Your task to perform on an android device: open app "Move to iOS" (install if not already installed) Image 0: 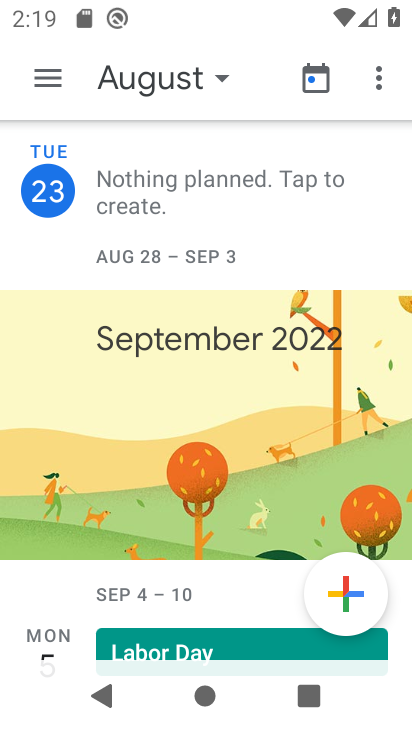
Step 0: press home button
Your task to perform on an android device: open app "Move to iOS" (install if not already installed) Image 1: 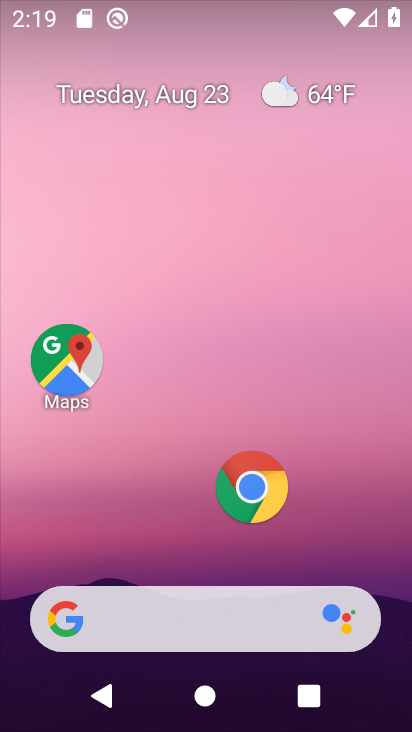
Step 1: drag from (109, 500) to (142, 154)
Your task to perform on an android device: open app "Move to iOS" (install if not already installed) Image 2: 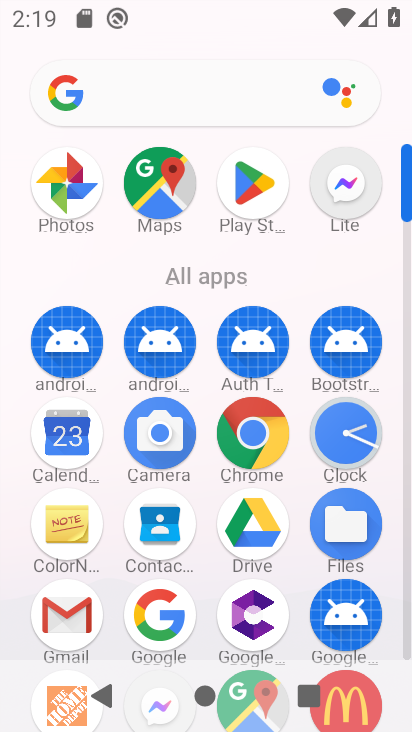
Step 2: click (227, 174)
Your task to perform on an android device: open app "Move to iOS" (install if not already installed) Image 3: 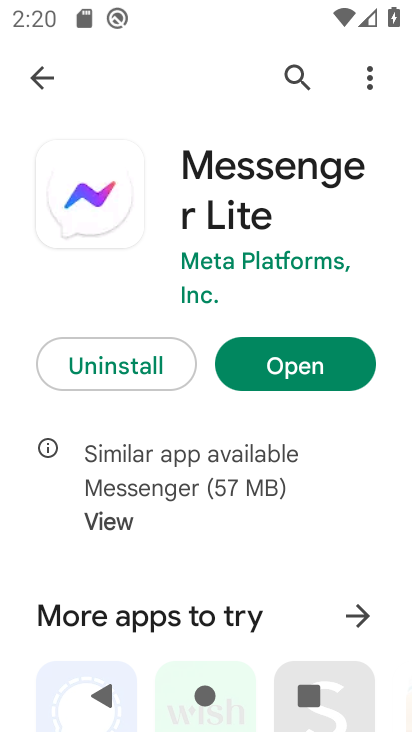
Step 3: click (329, 357)
Your task to perform on an android device: open app "Move to iOS" (install if not already installed) Image 4: 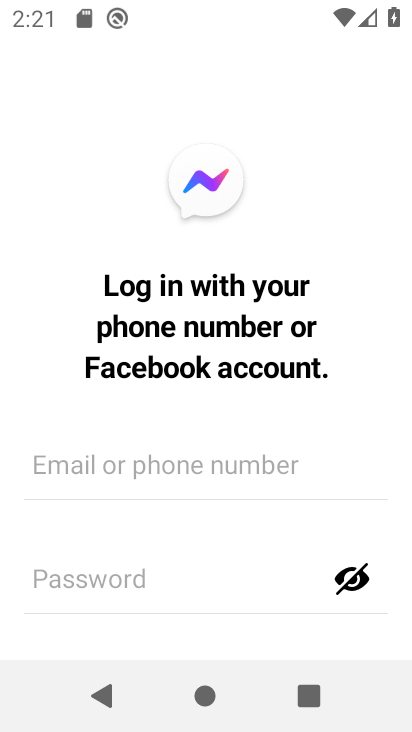
Step 4: press home button
Your task to perform on an android device: open app "Move to iOS" (install if not already installed) Image 5: 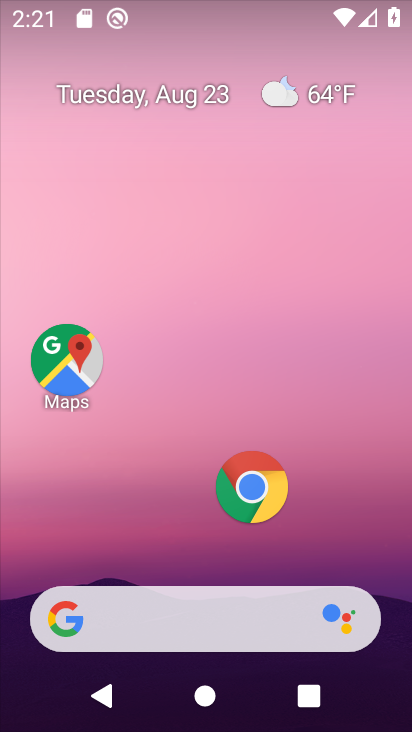
Step 5: drag from (147, 546) to (165, 214)
Your task to perform on an android device: open app "Move to iOS" (install if not already installed) Image 6: 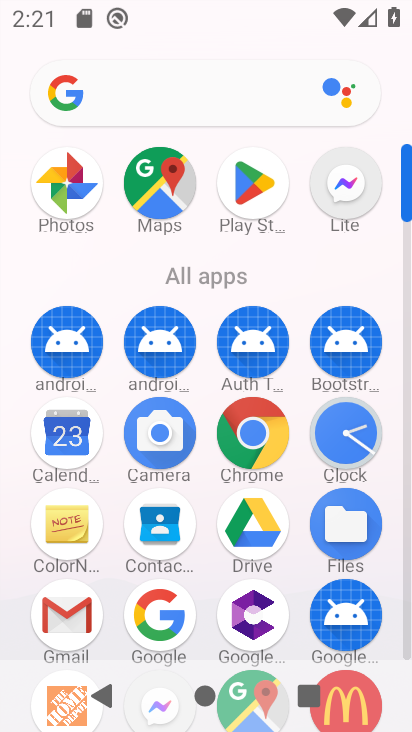
Step 6: click (250, 188)
Your task to perform on an android device: open app "Move to iOS" (install if not already installed) Image 7: 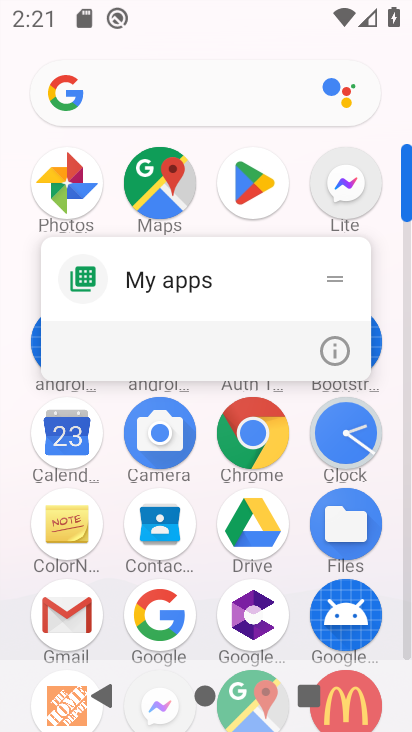
Step 7: click (250, 188)
Your task to perform on an android device: open app "Move to iOS" (install if not already installed) Image 8: 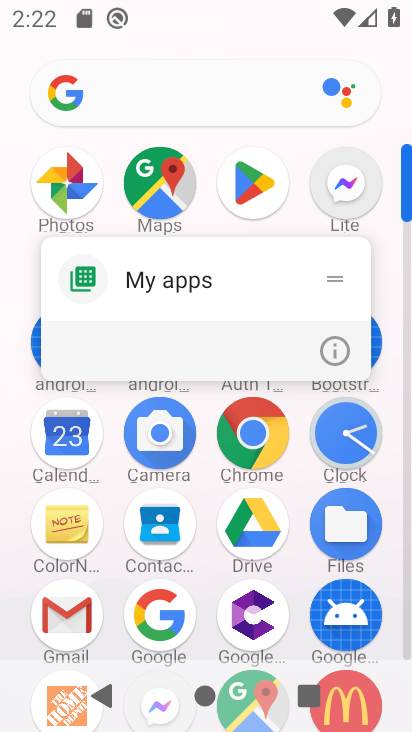
Step 8: click (251, 189)
Your task to perform on an android device: open app "Move to iOS" (install if not already installed) Image 9: 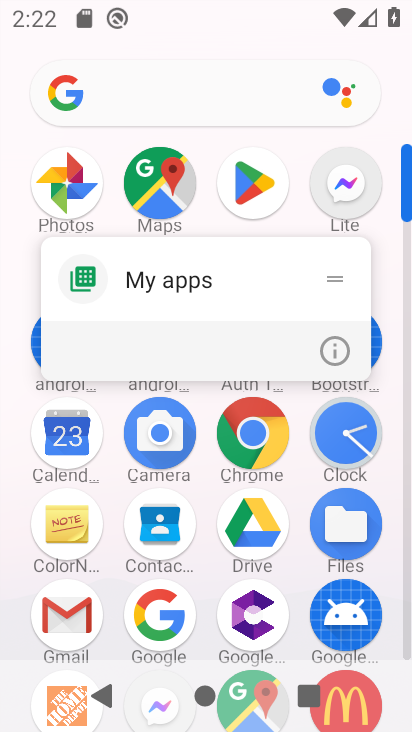
Step 9: click (251, 189)
Your task to perform on an android device: open app "Move to iOS" (install if not already installed) Image 10: 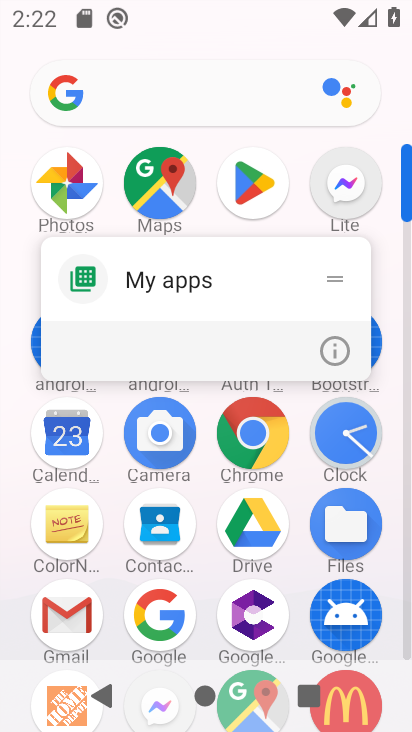
Step 10: click (243, 171)
Your task to perform on an android device: open app "Move to iOS" (install if not already installed) Image 11: 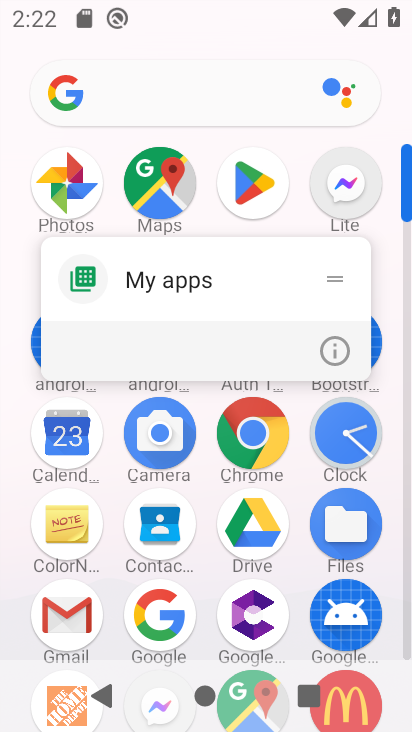
Step 11: drag from (204, 618) to (234, 121)
Your task to perform on an android device: open app "Move to iOS" (install if not already installed) Image 12: 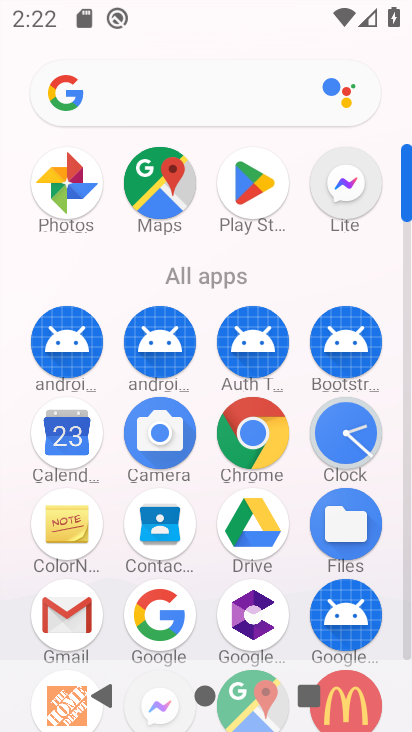
Step 12: drag from (219, 604) to (235, 130)
Your task to perform on an android device: open app "Move to iOS" (install if not already installed) Image 13: 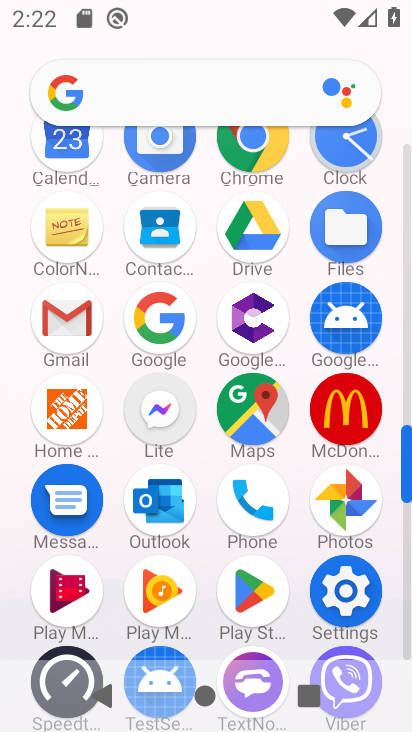
Step 13: click (246, 601)
Your task to perform on an android device: open app "Move to iOS" (install if not already installed) Image 14: 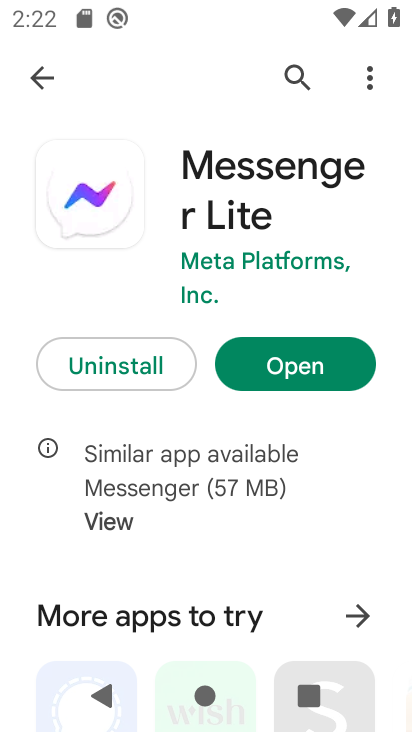
Step 14: click (40, 63)
Your task to perform on an android device: open app "Move to iOS" (install if not already installed) Image 15: 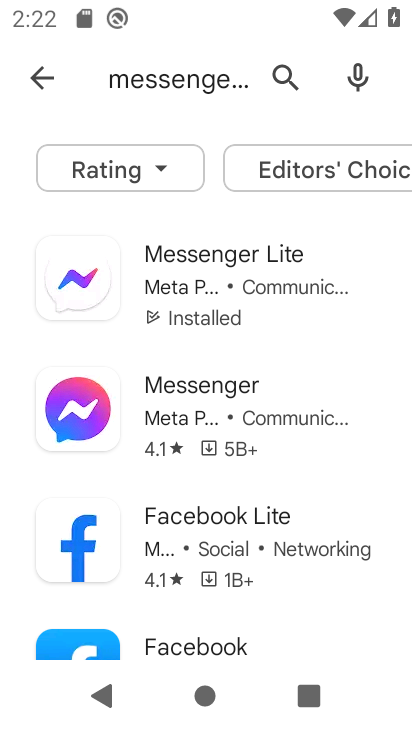
Step 15: click (52, 73)
Your task to perform on an android device: open app "Move to iOS" (install if not already installed) Image 16: 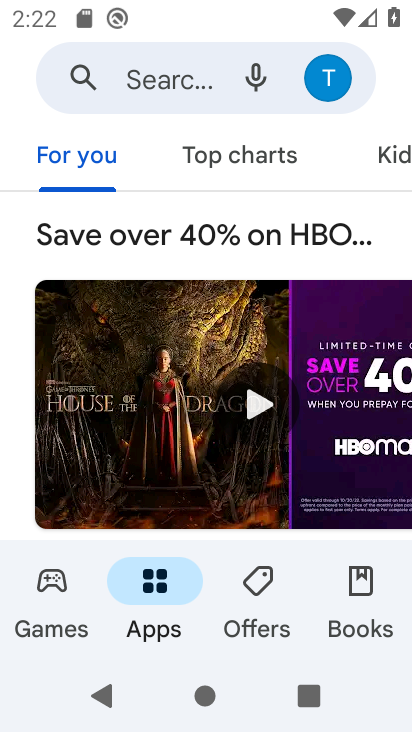
Step 16: click (163, 77)
Your task to perform on an android device: open app "Move to iOS" (install if not already installed) Image 17: 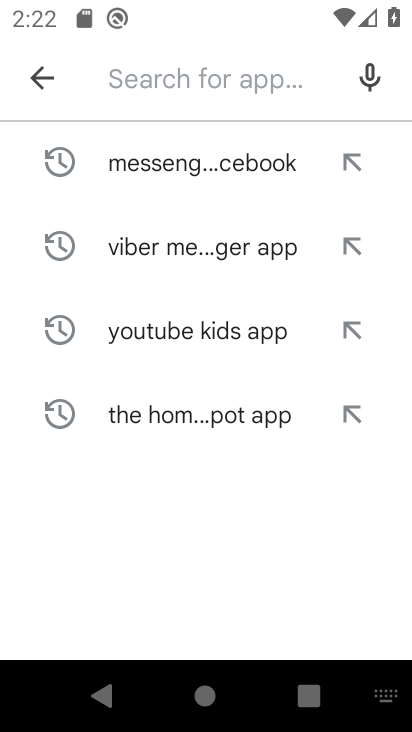
Step 17: type "Move to iOS "
Your task to perform on an android device: open app "Move to iOS" (install if not already installed) Image 18: 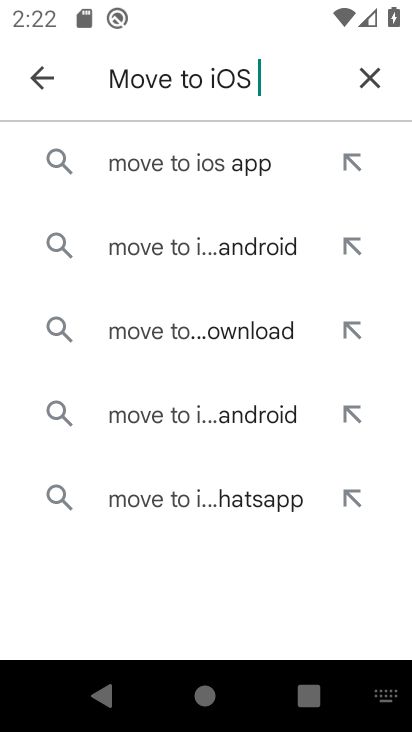
Step 18: click (167, 145)
Your task to perform on an android device: open app "Move to iOS" (install if not already installed) Image 19: 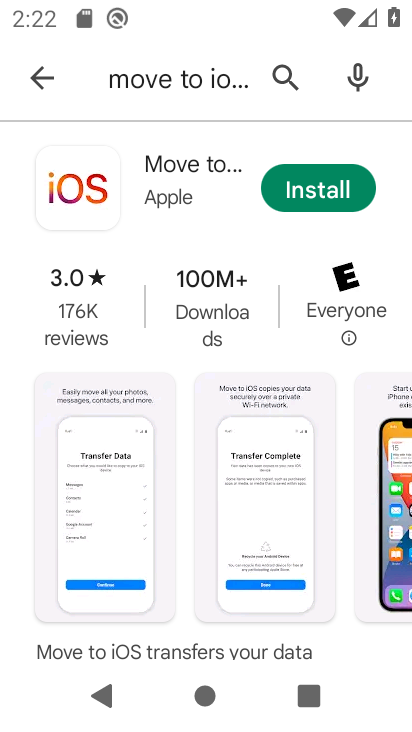
Step 19: click (336, 201)
Your task to perform on an android device: open app "Move to iOS" (install if not already installed) Image 20: 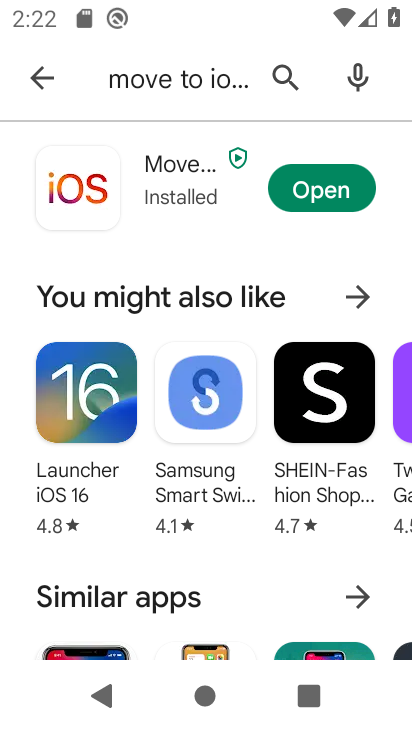
Step 20: click (326, 179)
Your task to perform on an android device: open app "Move to iOS" (install if not already installed) Image 21: 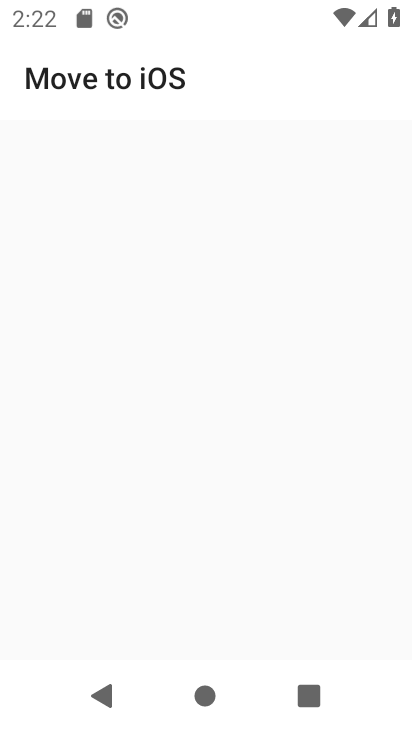
Step 21: task complete